Your task to perform on an android device: Open Google Chrome and open the bookmarks view Image 0: 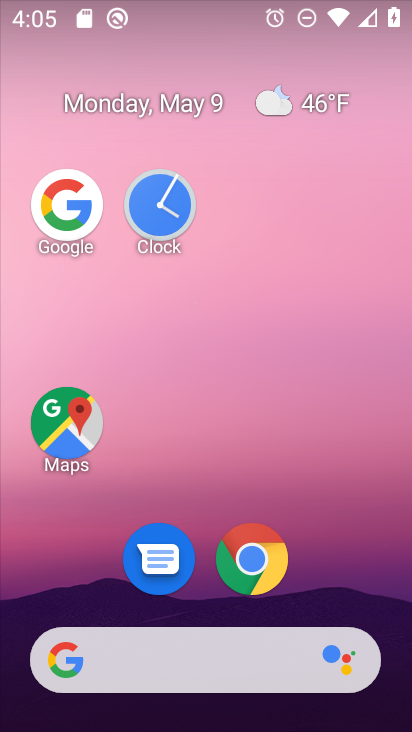
Step 0: click (268, 531)
Your task to perform on an android device: Open Google Chrome and open the bookmarks view Image 1: 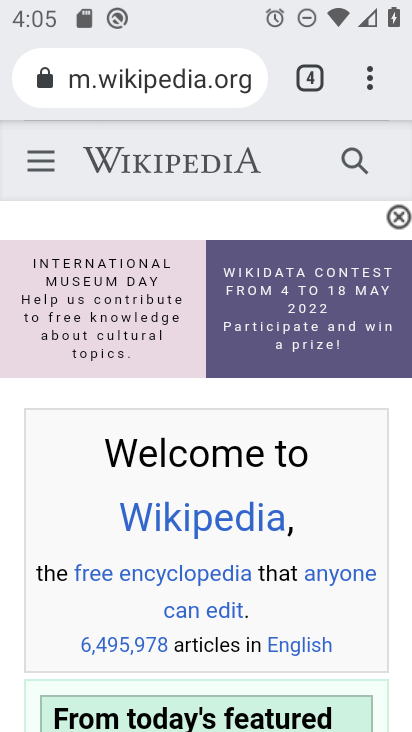
Step 1: click (376, 79)
Your task to perform on an android device: Open Google Chrome and open the bookmarks view Image 2: 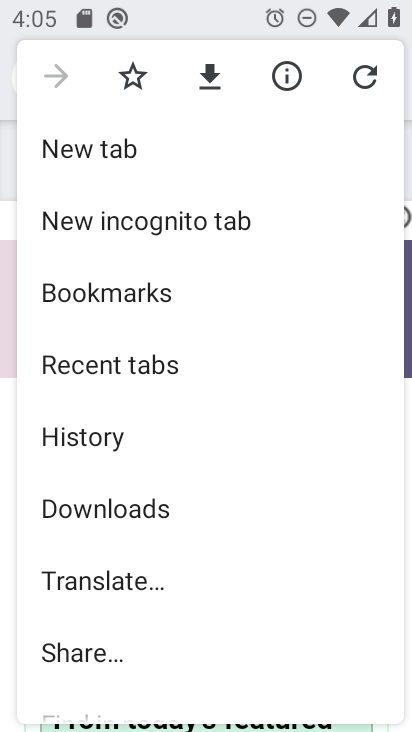
Step 2: click (163, 281)
Your task to perform on an android device: Open Google Chrome and open the bookmarks view Image 3: 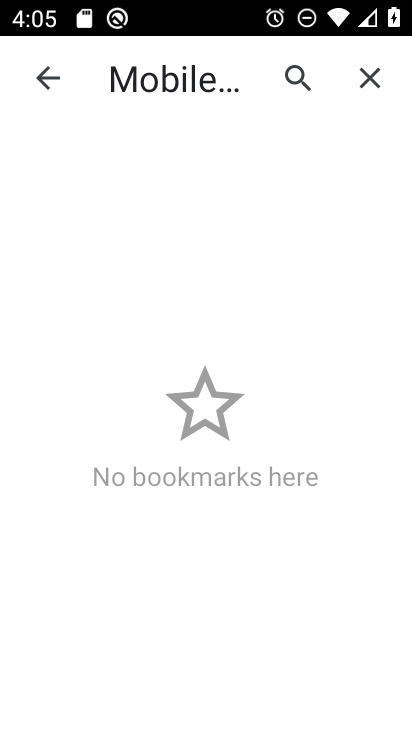
Step 3: task complete